Your task to perform on an android device: What is the recent news? Image 0: 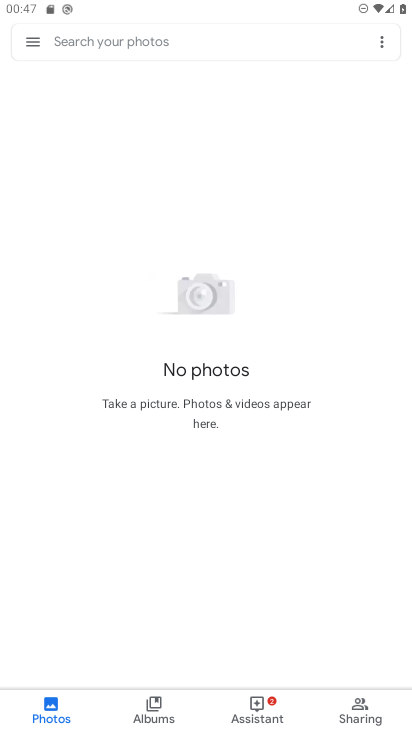
Step 0: press home button
Your task to perform on an android device: What is the recent news? Image 1: 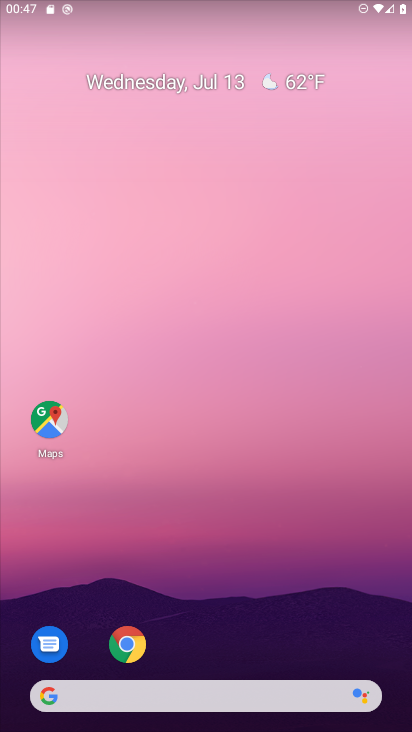
Step 1: drag from (50, 541) to (250, 503)
Your task to perform on an android device: What is the recent news? Image 2: 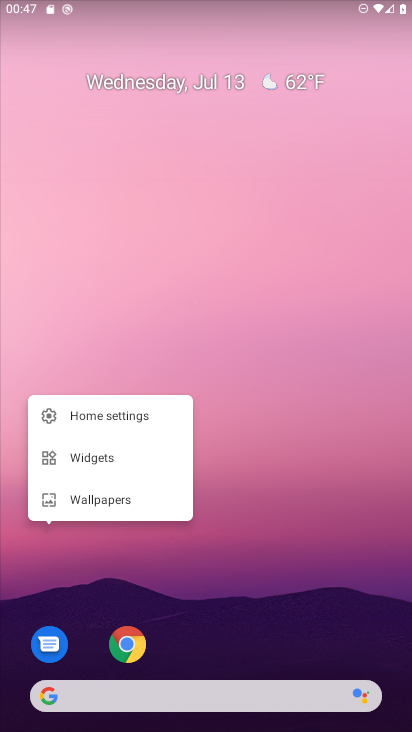
Step 2: click (97, 289)
Your task to perform on an android device: What is the recent news? Image 3: 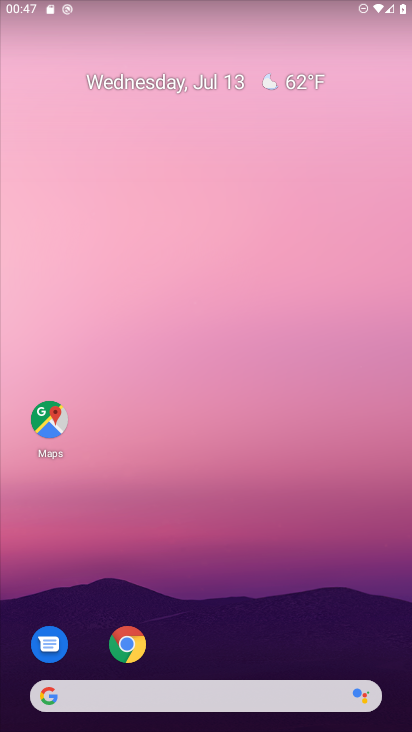
Step 3: task complete